Your task to perform on an android device: change timer sound Image 0: 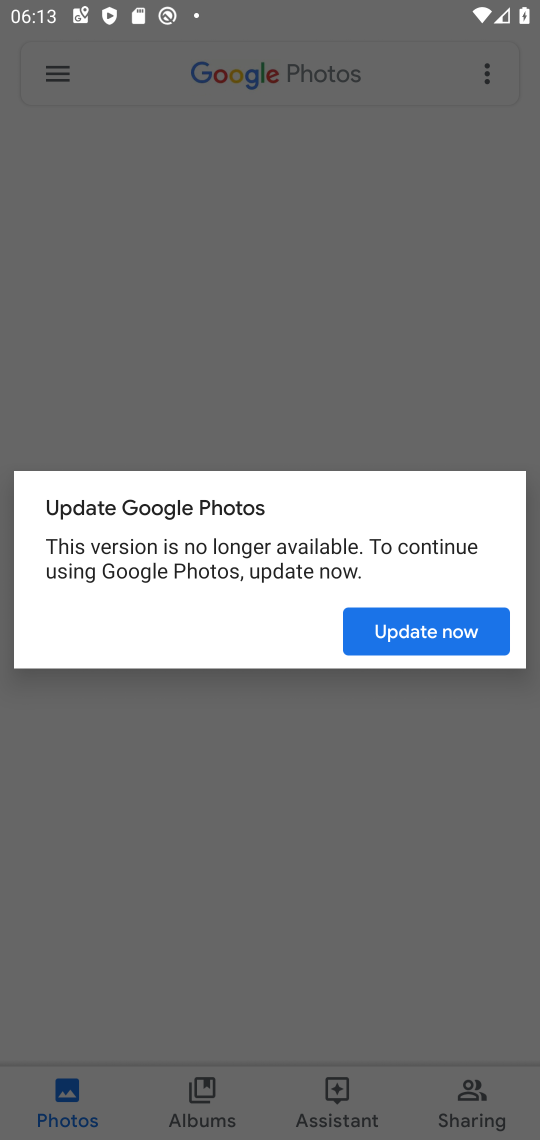
Step 0: press home button
Your task to perform on an android device: change timer sound Image 1: 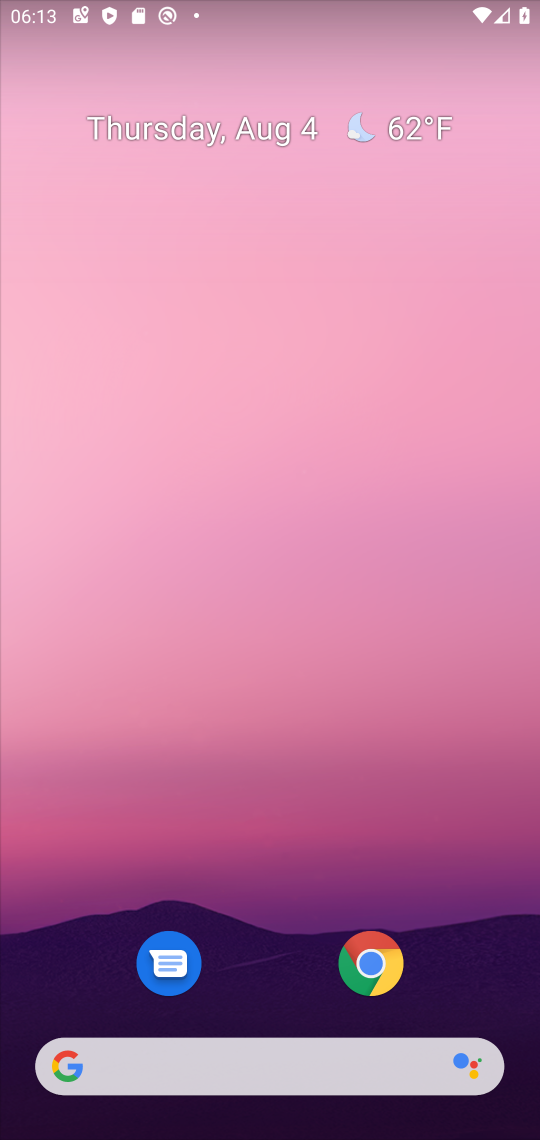
Step 1: drag from (273, 782) to (272, 63)
Your task to perform on an android device: change timer sound Image 2: 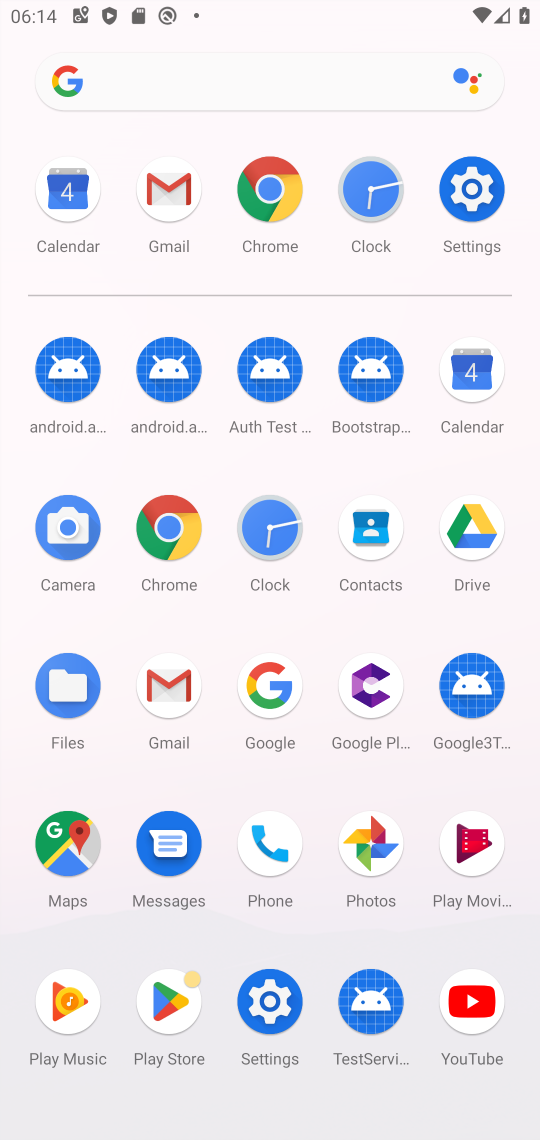
Step 2: click (369, 197)
Your task to perform on an android device: change timer sound Image 3: 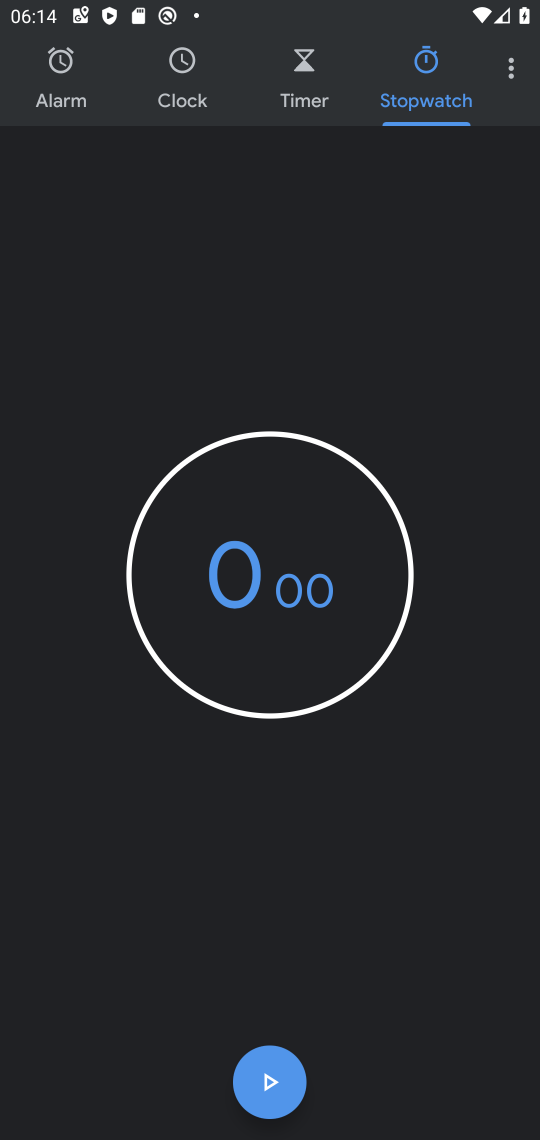
Step 3: click (512, 66)
Your task to perform on an android device: change timer sound Image 4: 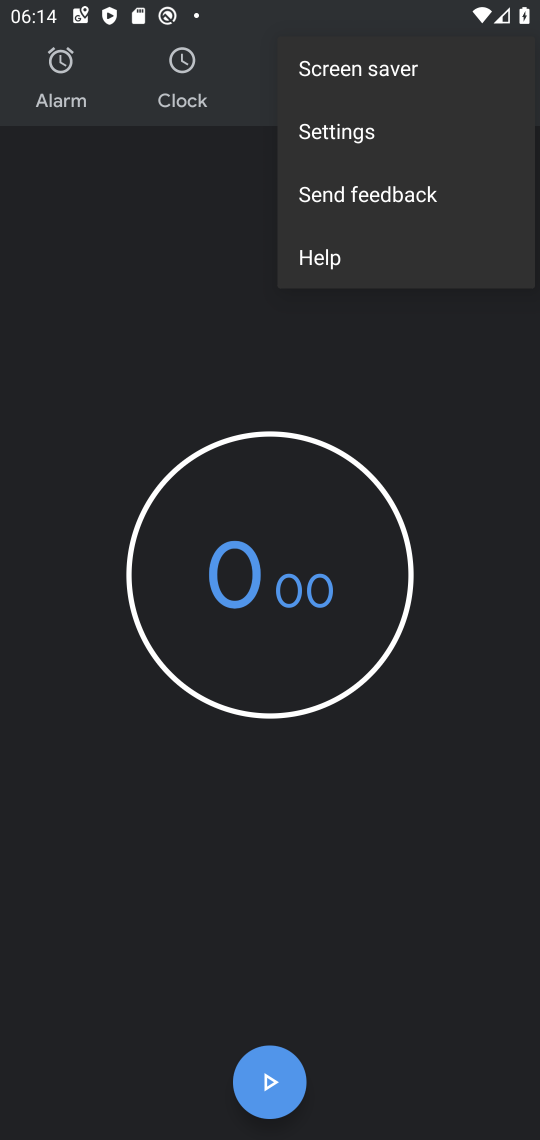
Step 4: click (327, 131)
Your task to perform on an android device: change timer sound Image 5: 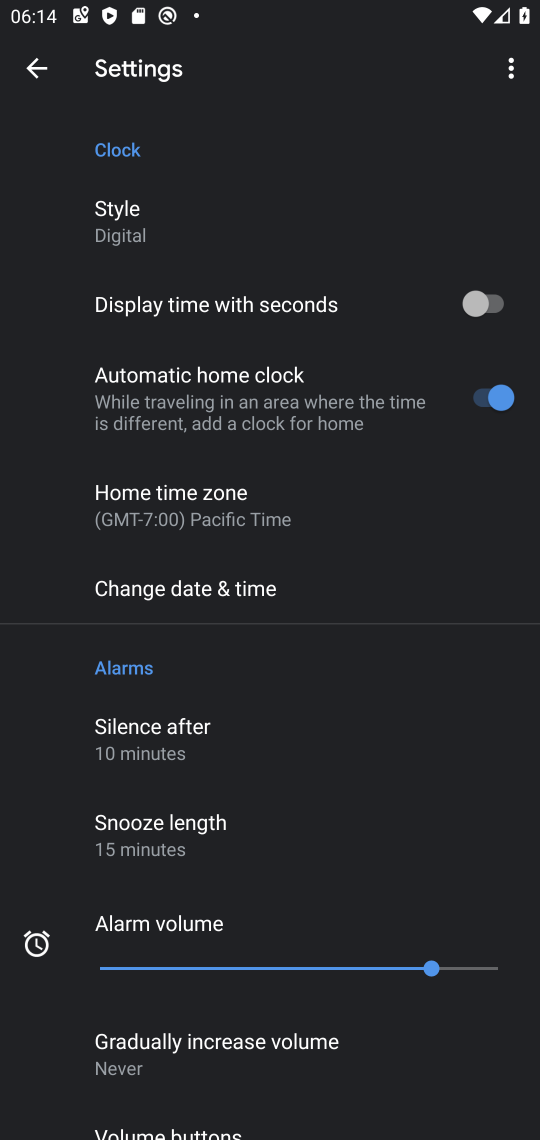
Step 5: drag from (289, 868) to (247, 362)
Your task to perform on an android device: change timer sound Image 6: 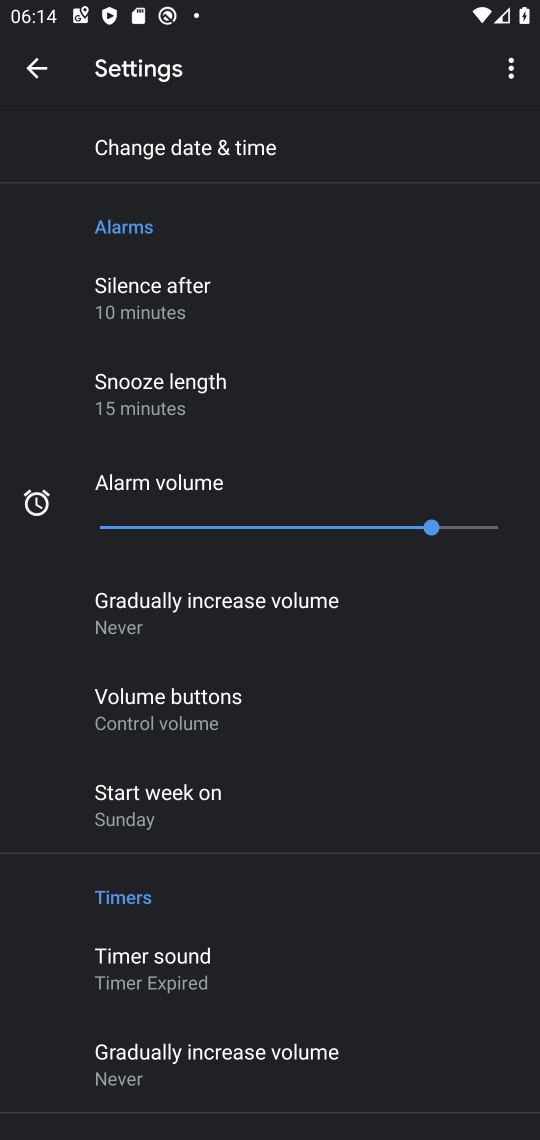
Step 6: click (164, 963)
Your task to perform on an android device: change timer sound Image 7: 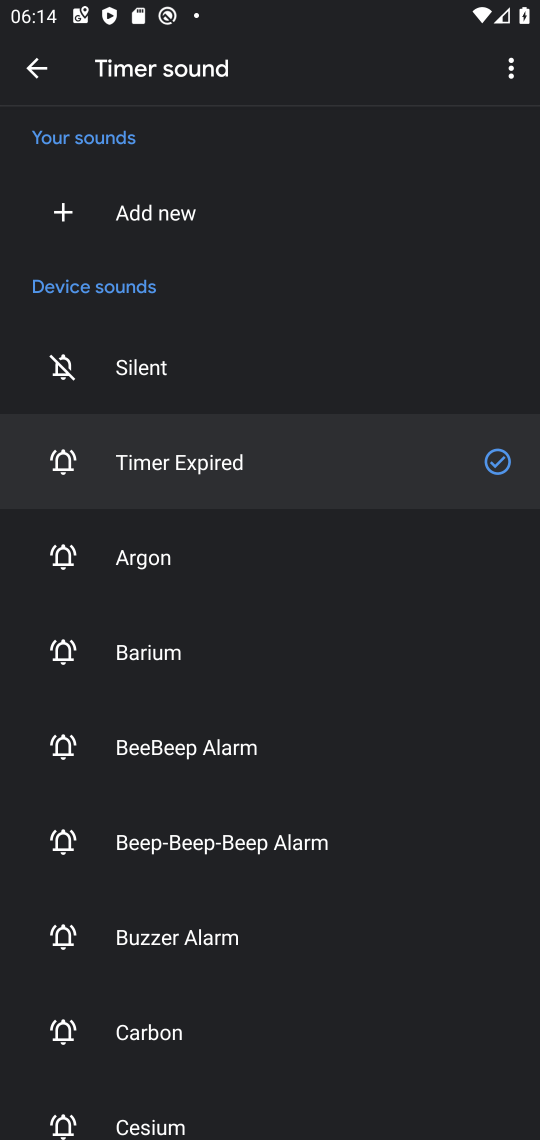
Step 7: click (146, 569)
Your task to perform on an android device: change timer sound Image 8: 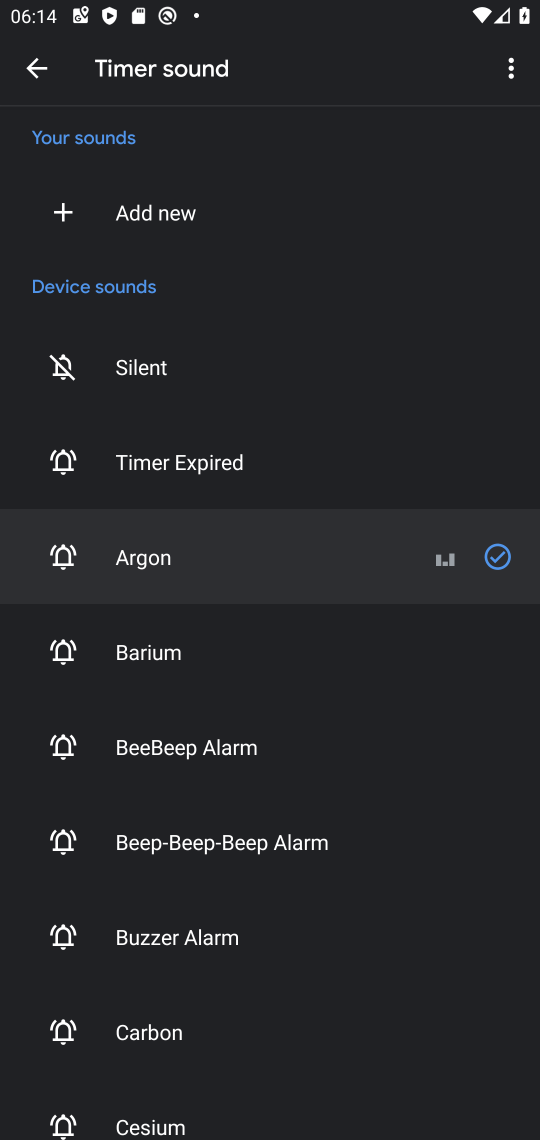
Step 8: task complete